Your task to perform on an android device: move a message to another label in the gmail app Image 0: 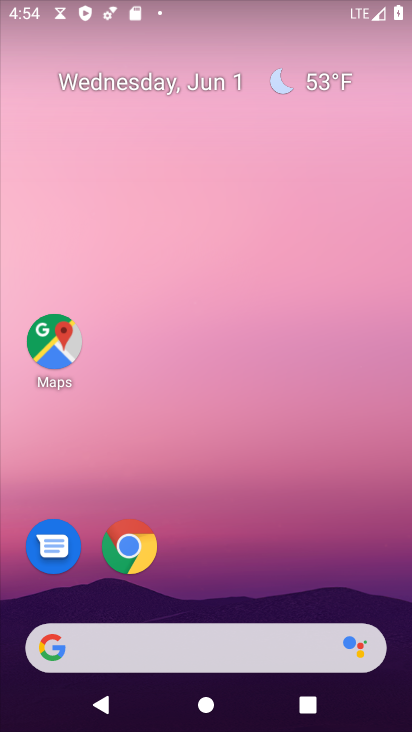
Step 0: drag from (248, 414) to (202, 29)
Your task to perform on an android device: move a message to another label in the gmail app Image 1: 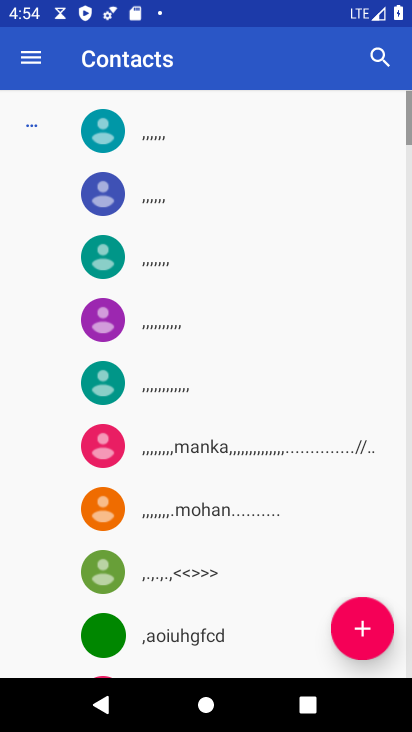
Step 1: press back button
Your task to perform on an android device: move a message to another label in the gmail app Image 2: 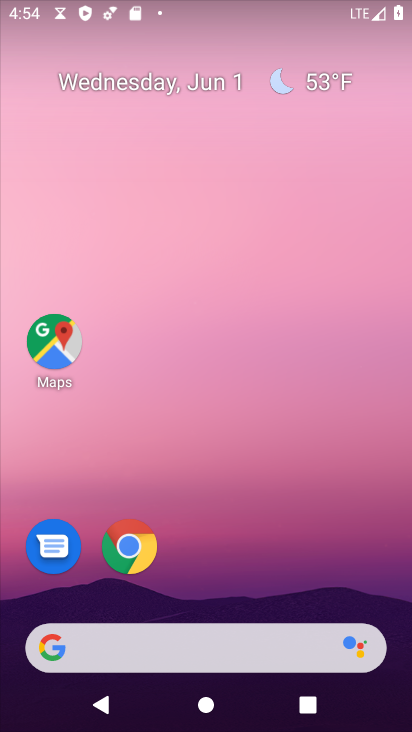
Step 2: drag from (253, 558) to (229, 49)
Your task to perform on an android device: move a message to another label in the gmail app Image 3: 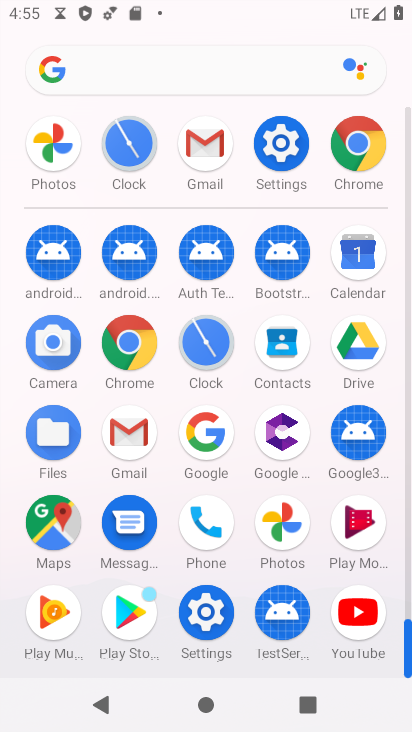
Step 3: drag from (5, 592) to (12, 251)
Your task to perform on an android device: move a message to another label in the gmail app Image 4: 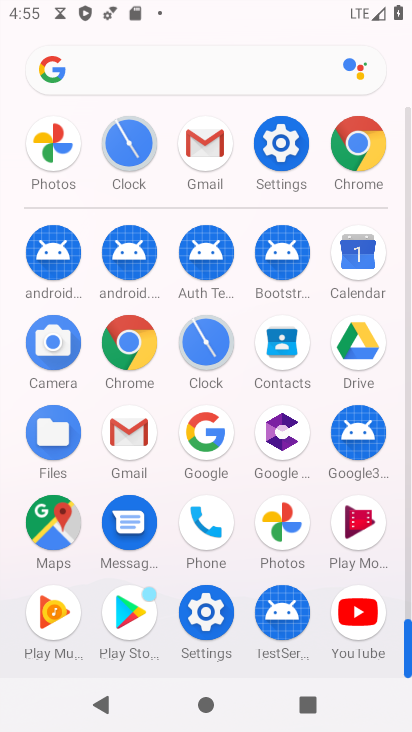
Step 4: click (130, 428)
Your task to perform on an android device: move a message to another label in the gmail app Image 5: 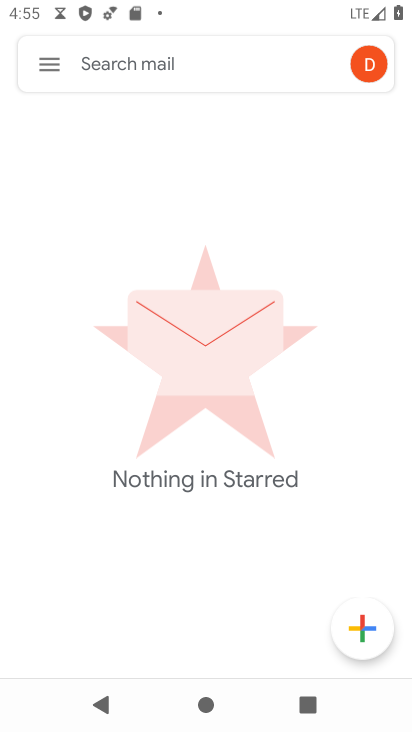
Step 5: click (49, 59)
Your task to perform on an android device: move a message to another label in the gmail app Image 6: 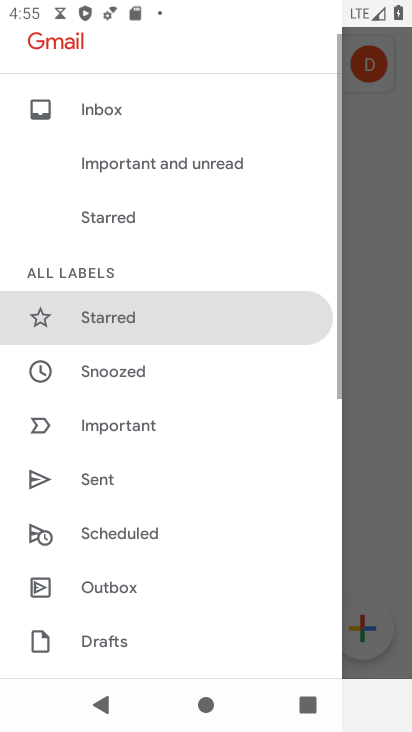
Step 6: drag from (177, 144) to (200, 573)
Your task to perform on an android device: move a message to another label in the gmail app Image 7: 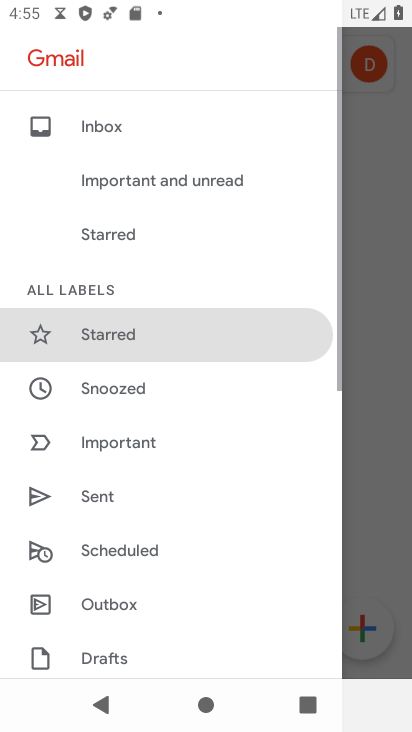
Step 7: click (101, 123)
Your task to perform on an android device: move a message to another label in the gmail app Image 8: 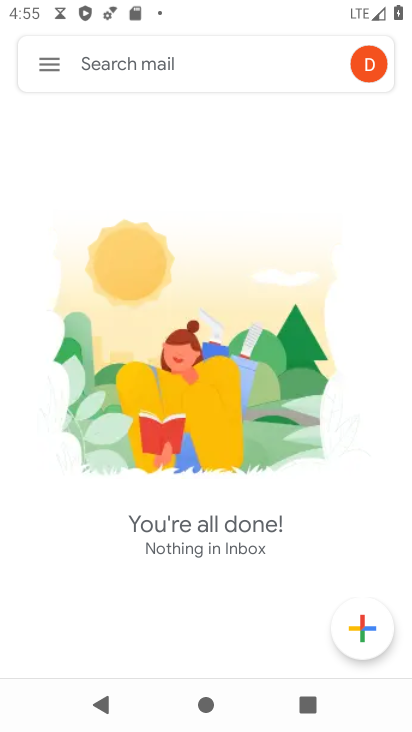
Step 8: click (63, 44)
Your task to perform on an android device: move a message to another label in the gmail app Image 9: 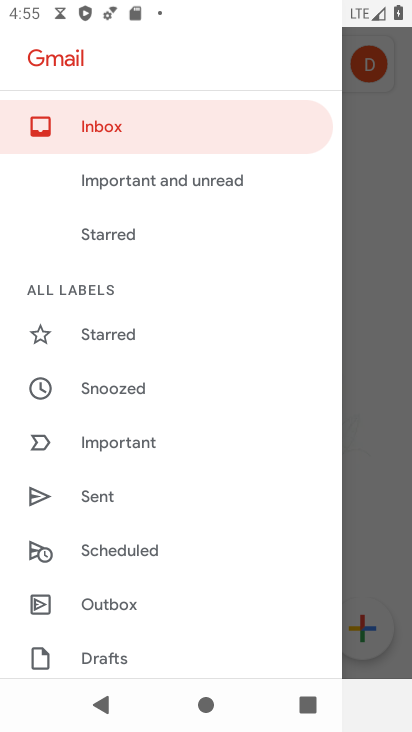
Step 9: click (142, 543)
Your task to perform on an android device: move a message to another label in the gmail app Image 10: 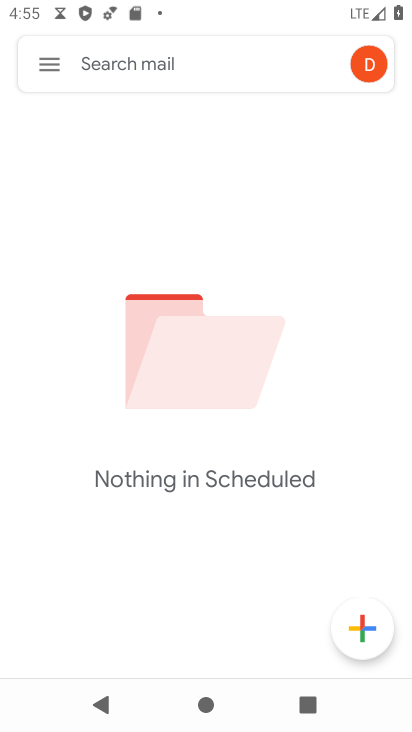
Step 10: click (41, 52)
Your task to perform on an android device: move a message to another label in the gmail app Image 11: 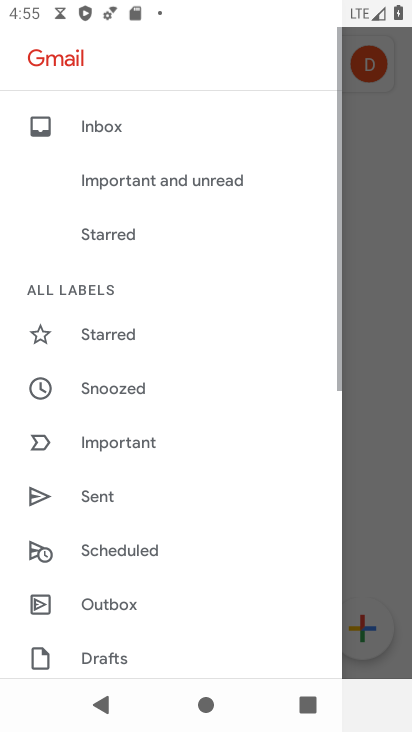
Step 11: drag from (149, 596) to (149, 253)
Your task to perform on an android device: move a message to another label in the gmail app Image 12: 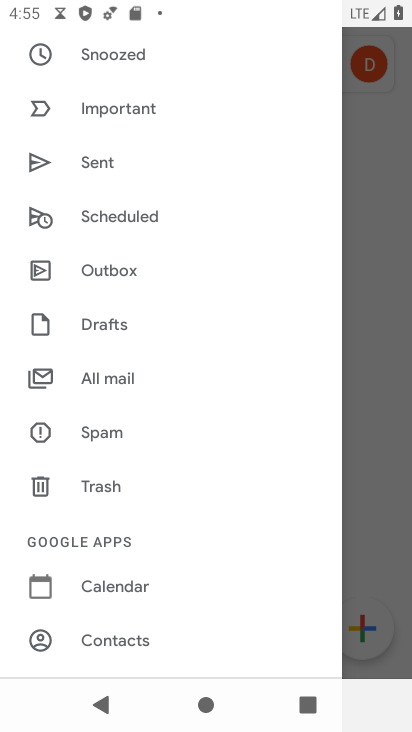
Step 12: click (130, 378)
Your task to perform on an android device: move a message to another label in the gmail app Image 13: 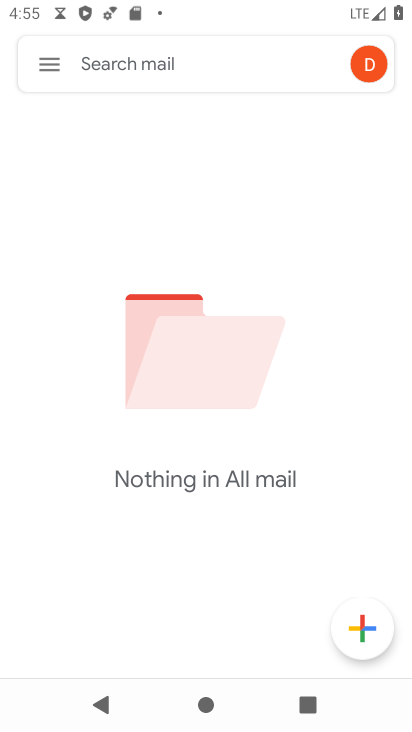
Step 13: click (40, 62)
Your task to perform on an android device: move a message to another label in the gmail app Image 14: 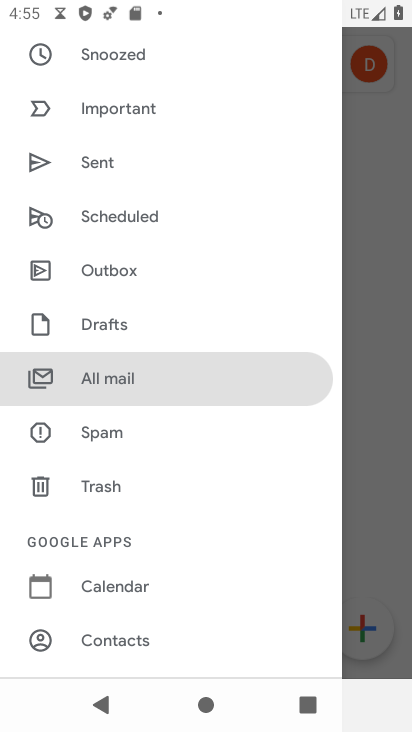
Step 14: drag from (169, 602) to (180, 135)
Your task to perform on an android device: move a message to another label in the gmail app Image 15: 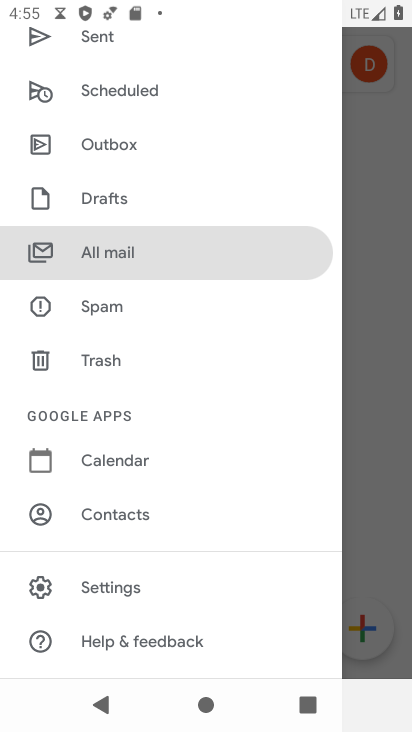
Step 15: click (126, 309)
Your task to perform on an android device: move a message to another label in the gmail app Image 16: 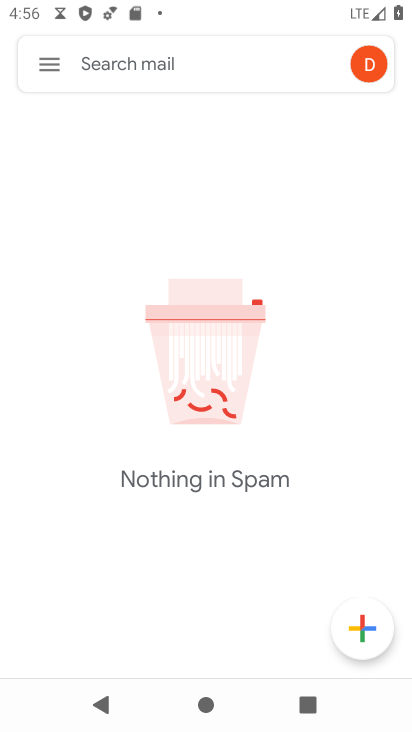
Step 16: click (48, 58)
Your task to perform on an android device: move a message to another label in the gmail app Image 17: 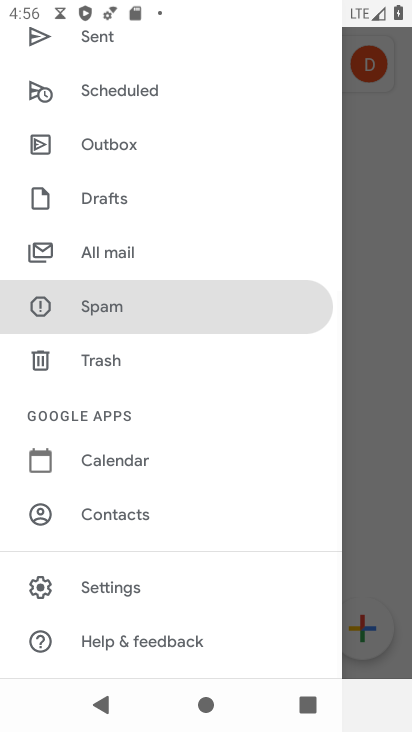
Step 17: click (113, 351)
Your task to perform on an android device: move a message to another label in the gmail app Image 18: 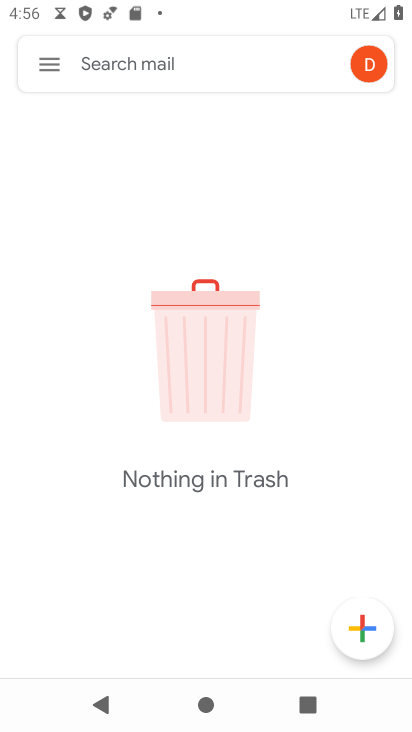
Step 18: click (46, 59)
Your task to perform on an android device: move a message to another label in the gmail app Image 19: 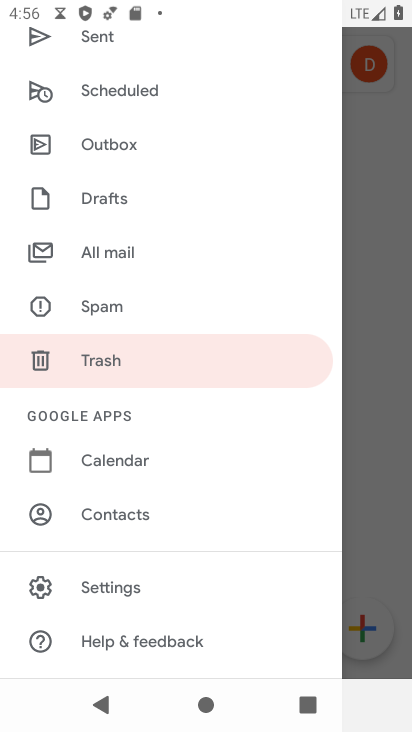
Step 19: click (142, 90)
Your task to perform on an android device: move a message to another label in the gmail app Image 20: 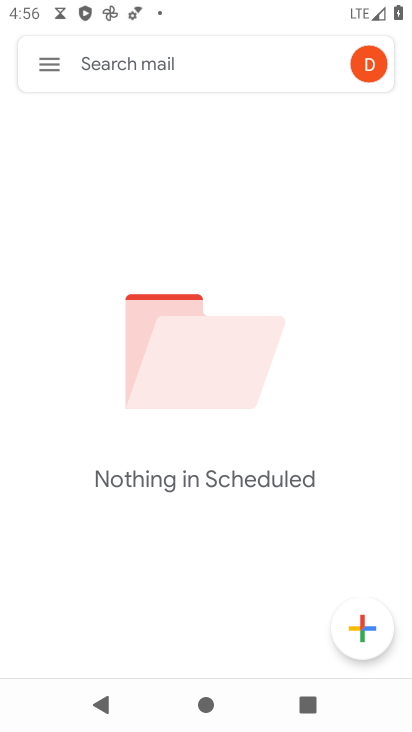
Step 20: task complete